Your task to perform on an android device: remove spam from my inbox in the gmail app Image 0: 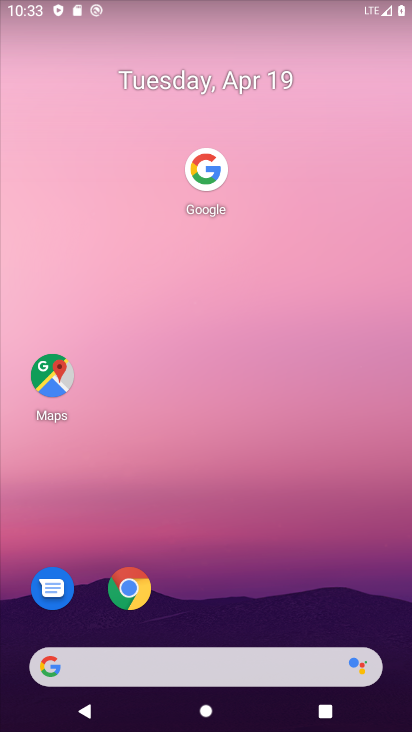
Step 0: drag from (202, 585) to (73, 2)
Your task to perform on an android device: remove spam from my inbox in the gmail app Image 1: 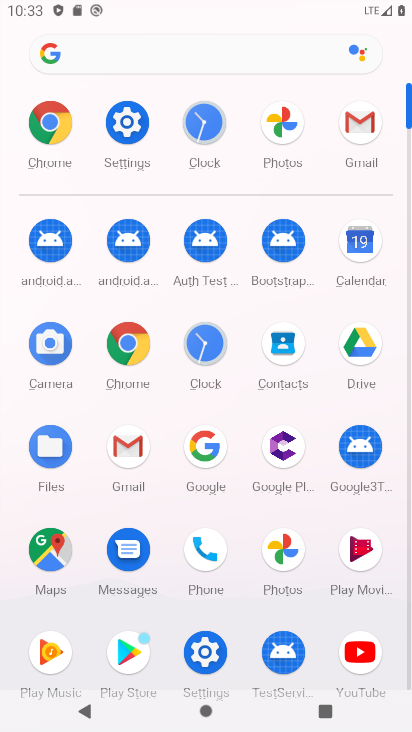
Step 1: click (133, 443)
Your task to perform on an android device: remove spam from my inbox in the gmail app Image 2: 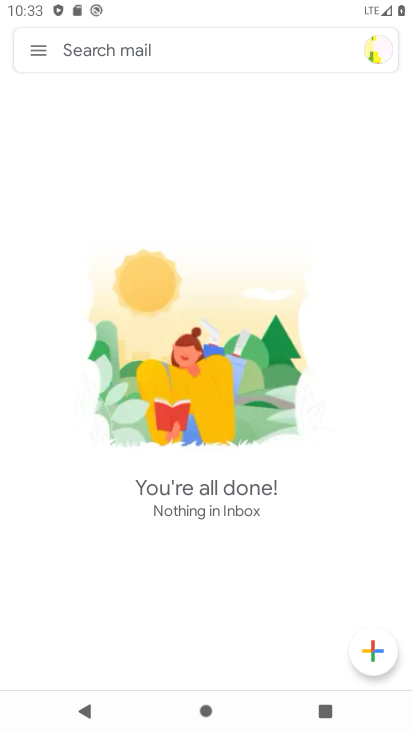
Step 2: click (42, 45)
Your task to perform on an android device: remove spam from my inbox in the gmail app Image 3: 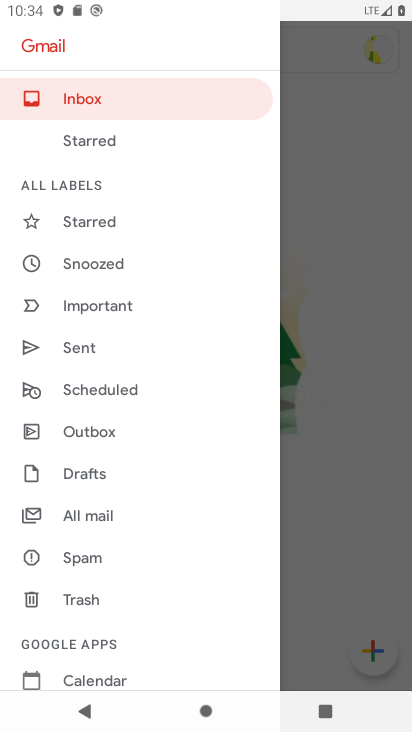
Step 3: click (86, 560)
Your task to perform on an android device: remove spam from my inbox in the gmail app Image 4: 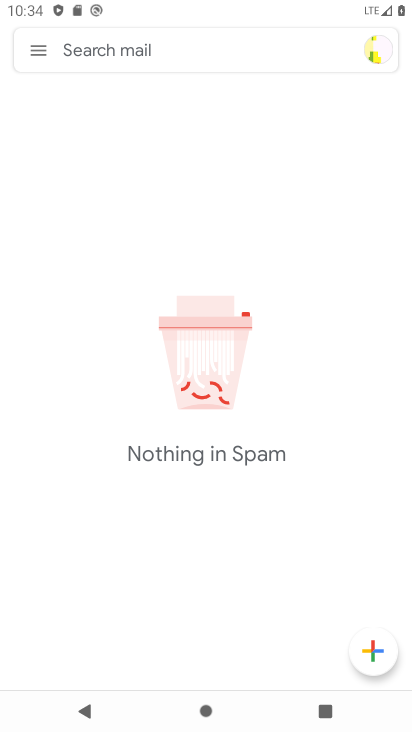
Step 4: task complete